Your task to perform on an android device: What is the news today? Image 0: 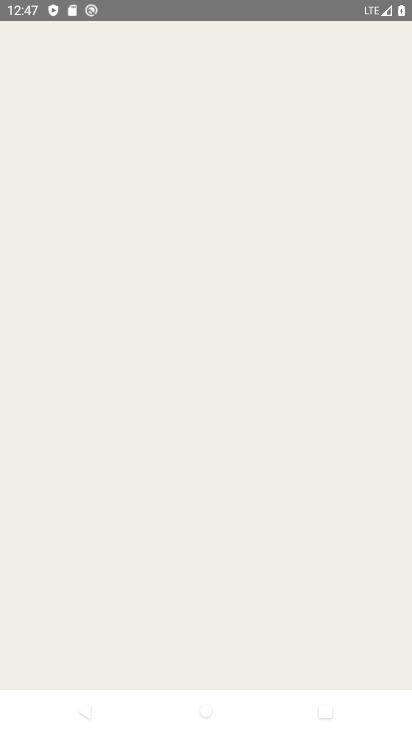
Step 0: drag from (81, 573) to (341, 139)
Your task to perform on an android device: What is the news today? Image 1: 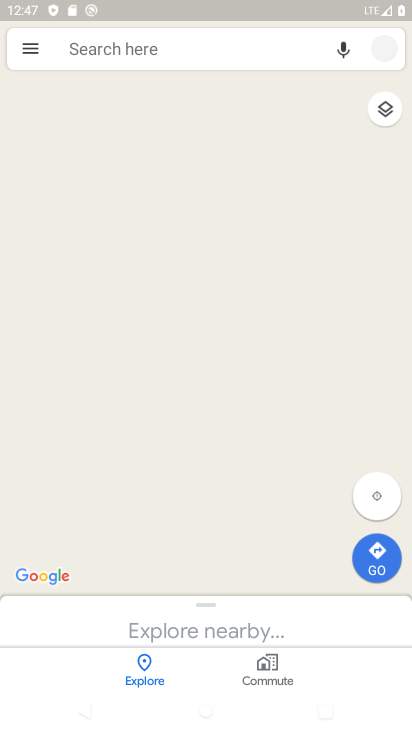
Step 1: press home button
Your task to perform on an android device: What is the news today? Image 2: 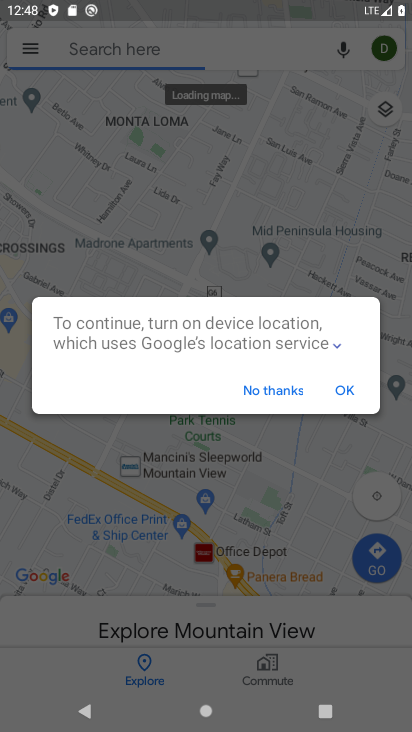
Step 2: click (267, 397)
Your task to perform on an android device: What is the news today? Image 3: 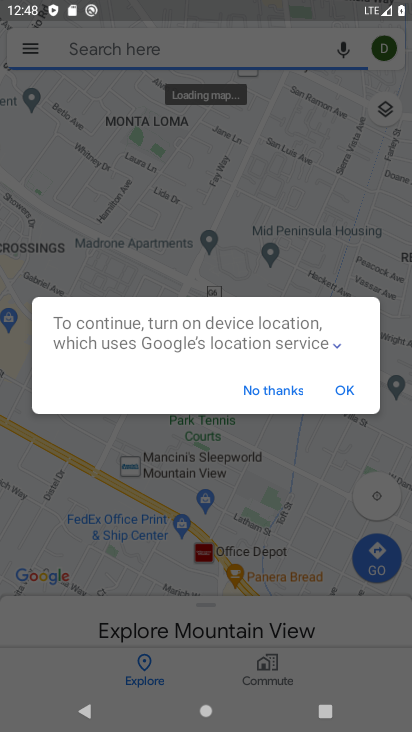
Step 3: click (250, 389)
Your task to perform on an android device: What is the news today? Image 4: 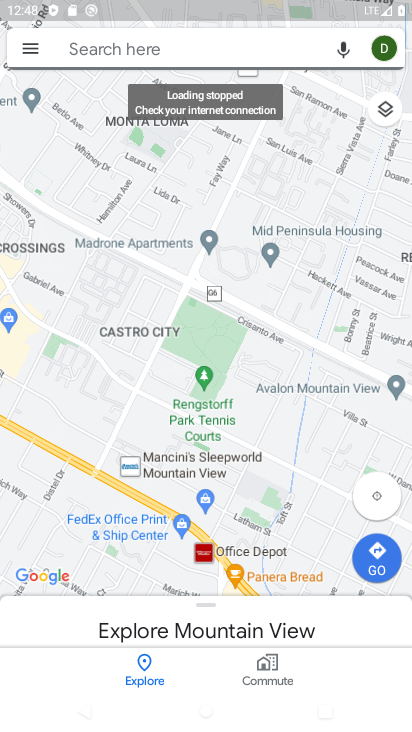
Step 4: press home button
Your task to perform on an android device: What is the news today? Image 5: 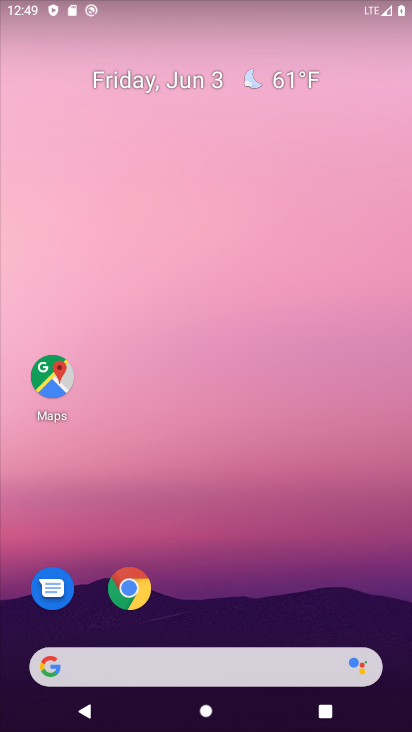
Step 5: click (149, 655)
Your task to perform on an android device: What is the news today? Image 6: 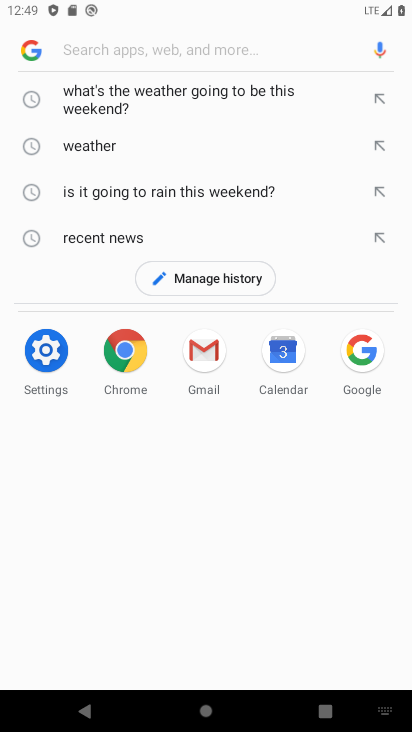
Step 6: click (195, 36)
Your task to perform on an android device: What is the news today? Image 7: 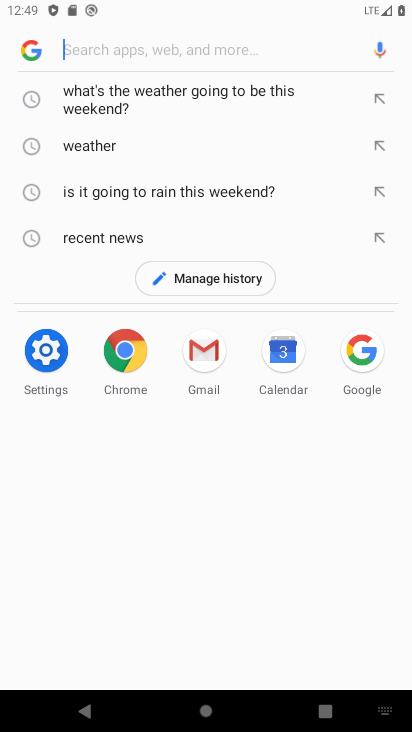
Step 7: click (251, 33)
Your task to perform on an android device: What is the news today? Image 8: 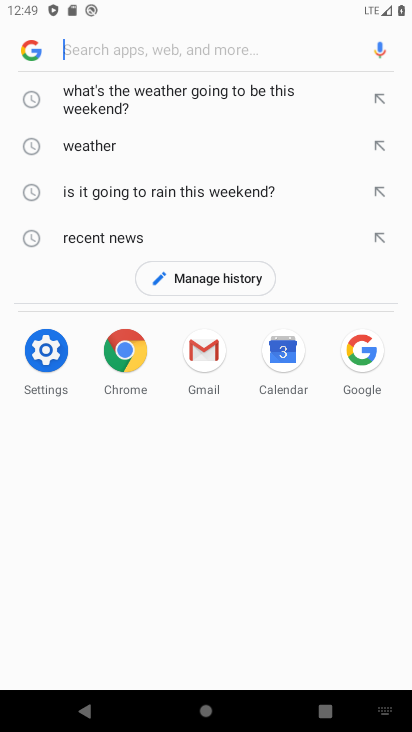
Step 8: type " news"
Your task to perform on an android device: What is the news today? Image 9: 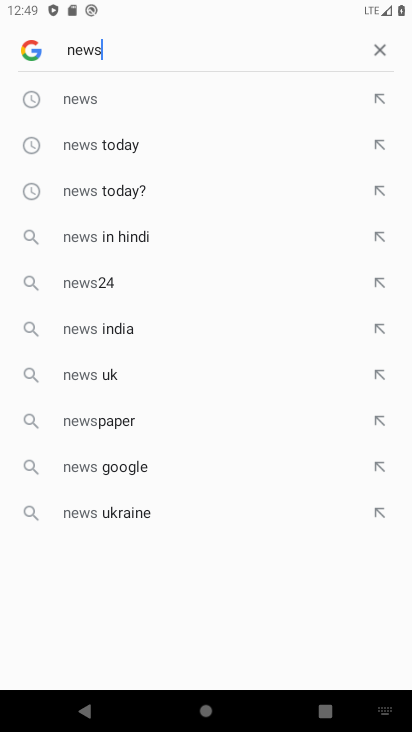
Step 9: click (112, 95)
Your task to perform on an android device: What is the news today? Image 10: 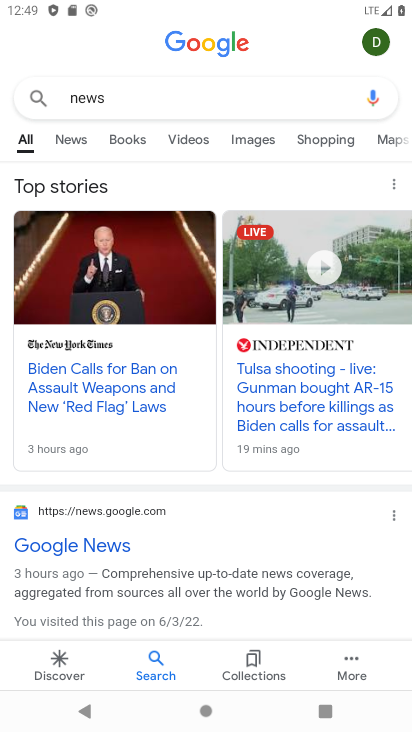
Step 10: task complete